Your task to perform on an android device: Go to Google maps Image 0: 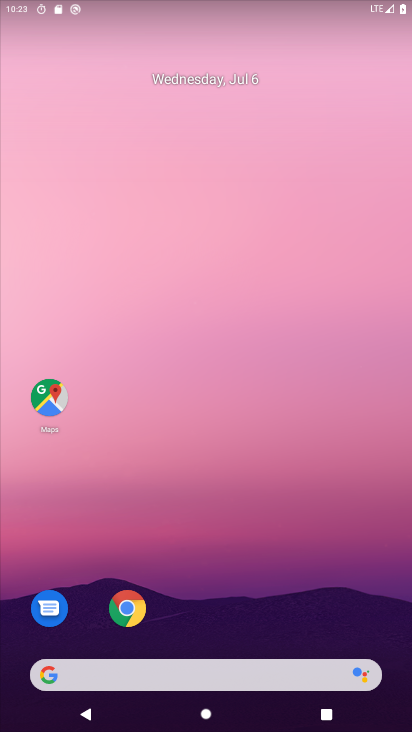
Step 0: drag from (206, 570) to (274, 3)
Your task to perform on an android device: Go to Google maps Image 1: 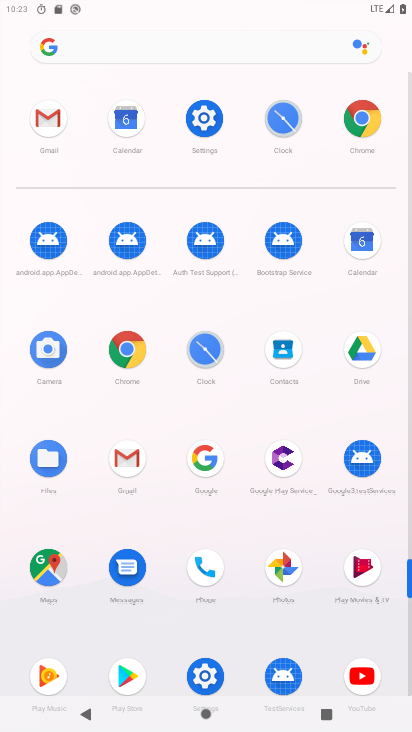
Step 1: click (39, 556)
Your task to perform on an android device: Go to Google maps Image 2: 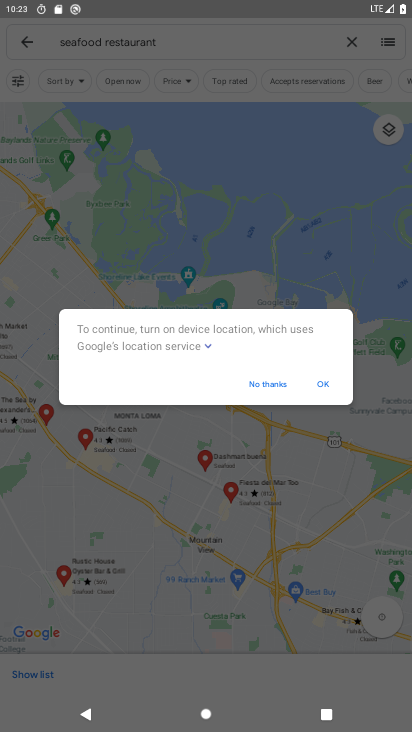
Step 2: click (328, 381)
Your task to perform on an android device: Go to Google maps Image 3: 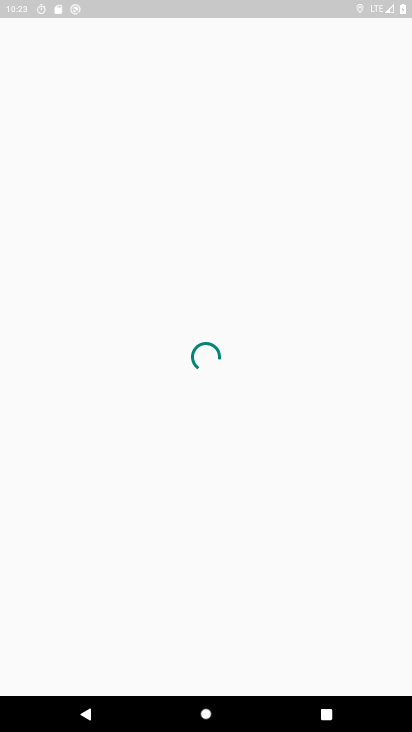
Step 3: task complete